Your task to perform on an android device: turn notification dots on Image 0: 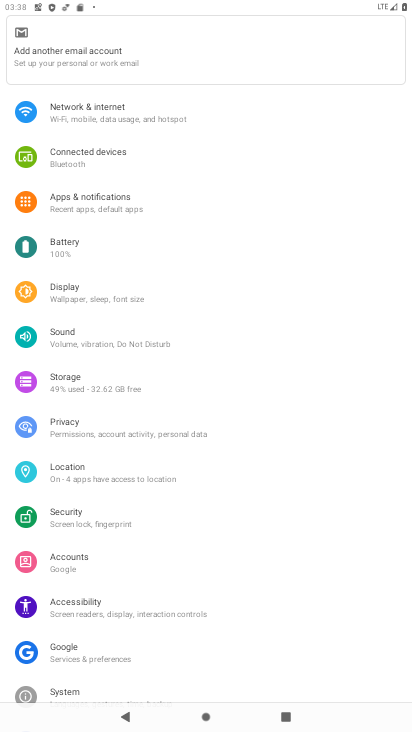
Step 0: click (88, 214)
Your task to perform on an android device: turn notification dots on Image 1: 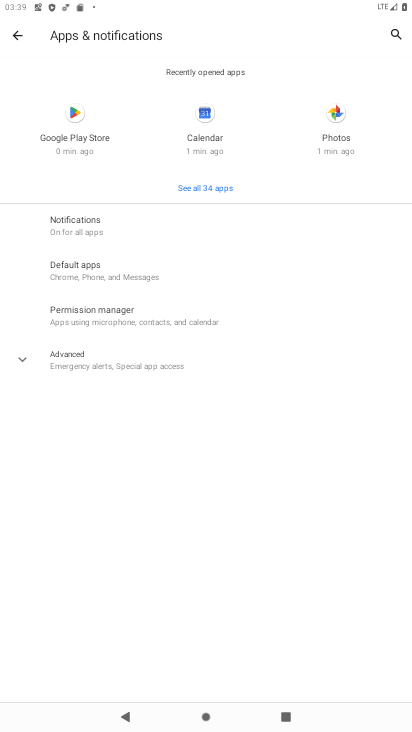
Step 1: click (23, 365)
Your task to perform on an android device: turn notification dots on Image 2: 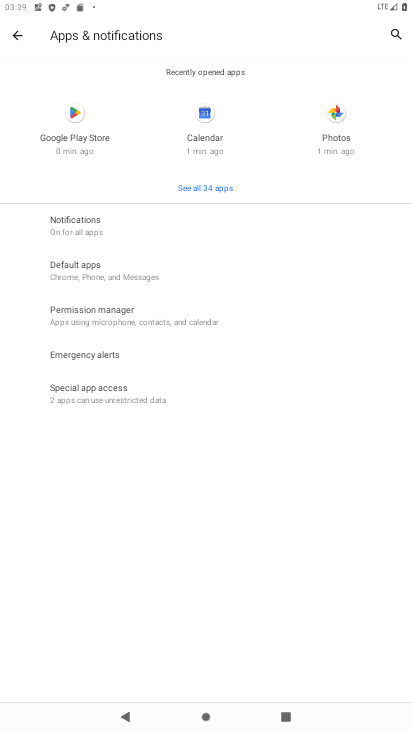
Step 2: click (58, 234)
Your task to perform on an android device: turn notification dots on Image 3: 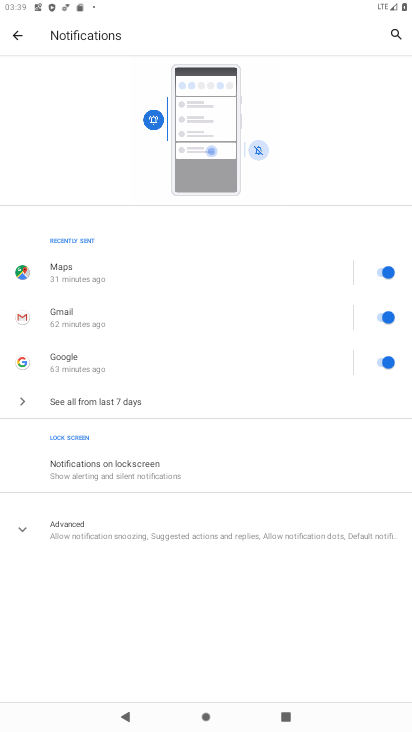
Step 3: click (26, 530)
Your task to perform on an android device: turn notification dots on Image 4: 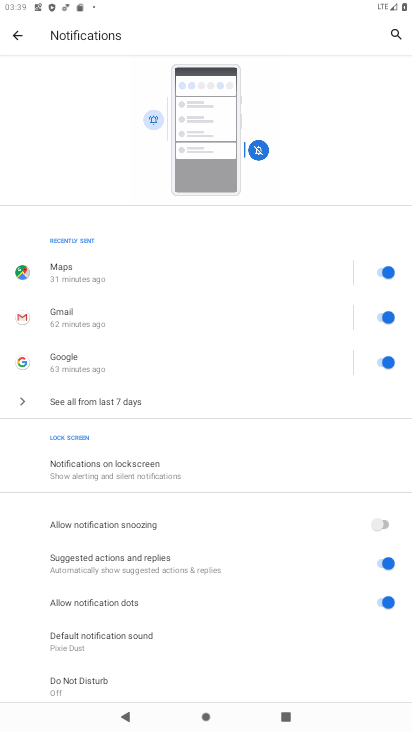
Step 4: task complete